Your task to perform on an android device: check the backup settings in the google photos Image 0: 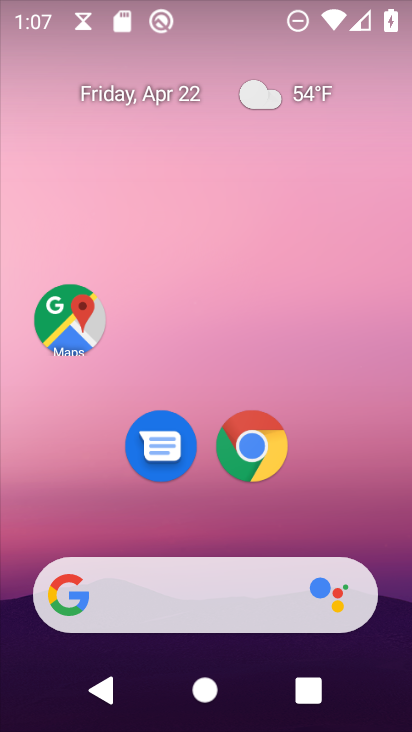
Step 0: drag from (398, 569) to (278, 72)
Your task to perform on an android device: check the backup settings in the google photos Image 1: 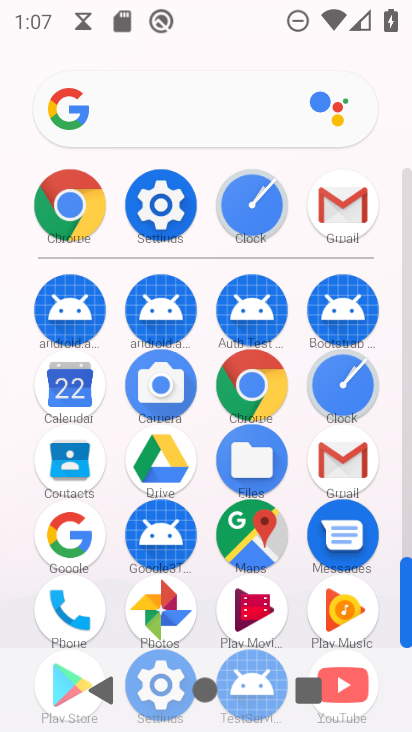
Step 1: click (182, 594)
Your task to perform on an android device: check the backup settings in the google photos Image 2: 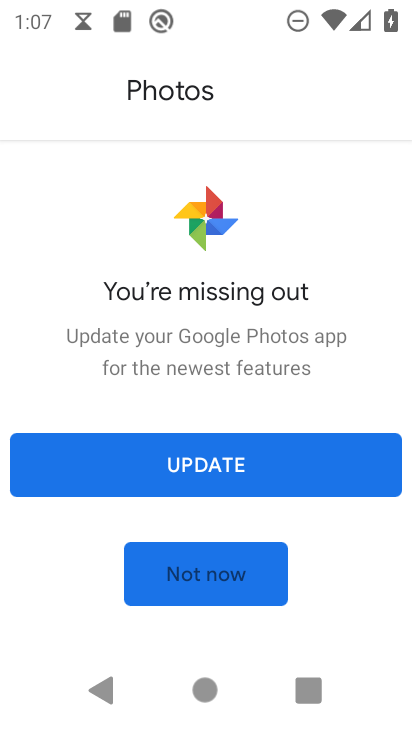
Step 2: click (231, 463)
Your task to perform on an android device: check the backup settings in the google photos Image 3: 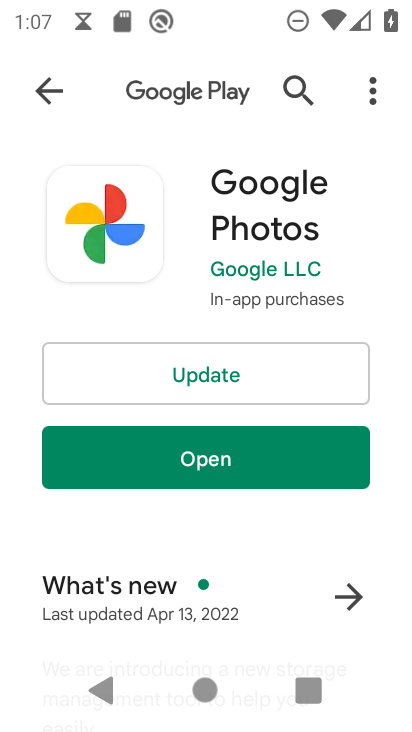
Step 3: click (227, 396)
Your task to perform on an android device: check the backup settings in the google photos Image 4: 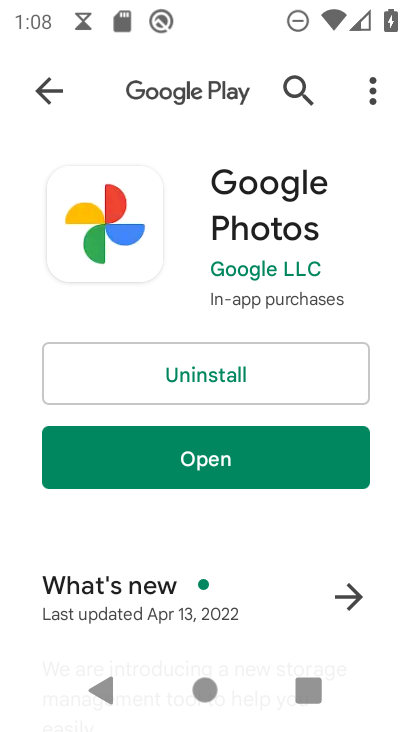
Step 4: click (300, 474)
Your task to perform on an android device: check the backup settings in the google photos Image 5: 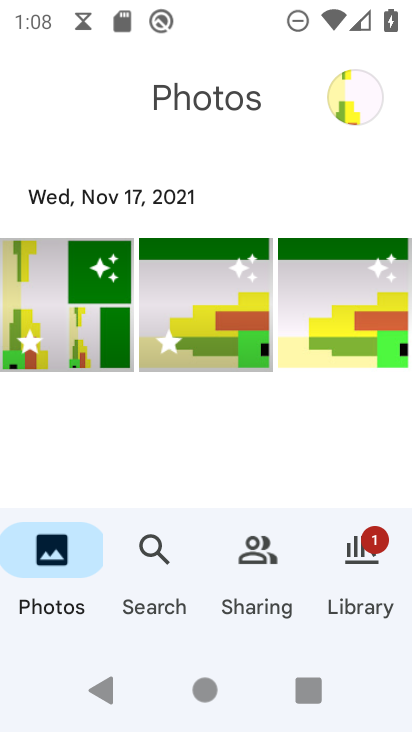
Step 5: click (350, 102)
Your task to perform on an android device: check the backup settings in the google photos Image 6: 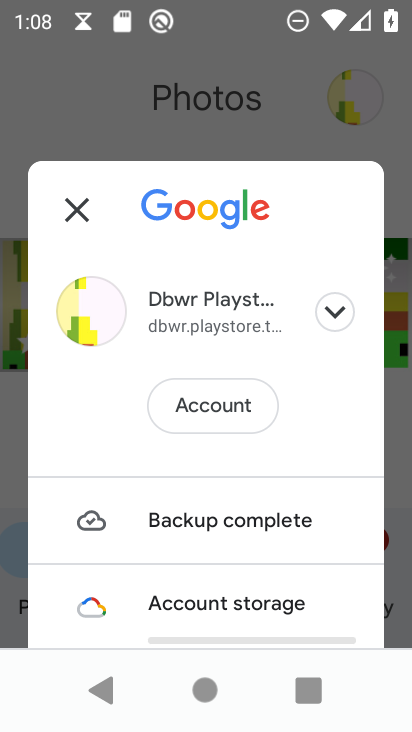
Step 6: drag from (255, 506) to (262, 195)
Your task to perform on an android device: check the backup settings in the google photos Image 7: 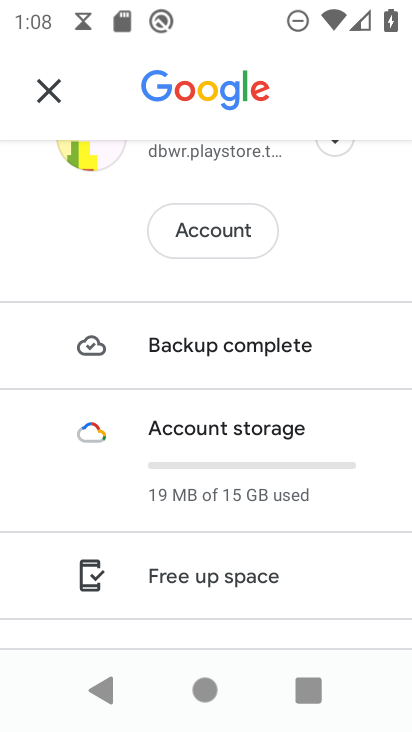
Step 7: drag from (283, 538) to (266, 206)
Your task to perform on an android device: check the backup settings in the google photos Image 8: 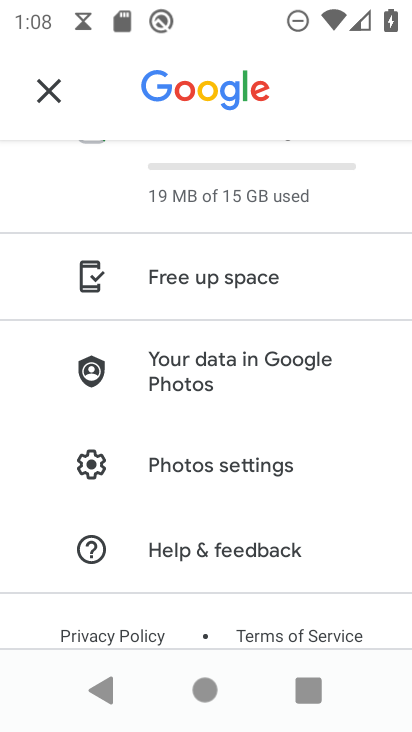
Step 8: click (290, 468)
Your task to perform on an android device: check the backup settings in the google photos Image 9: 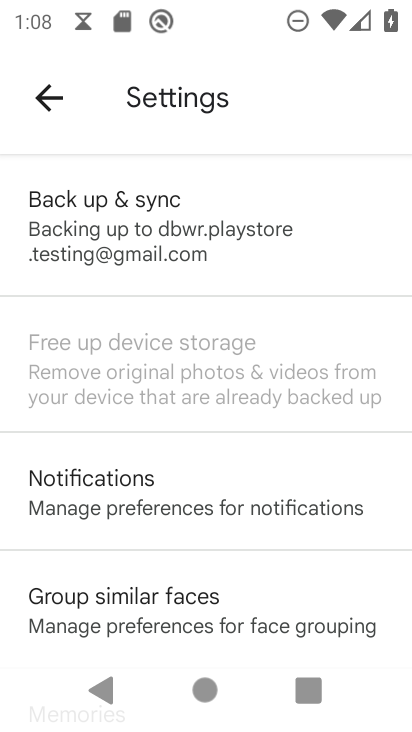
Step 9: click (259, 245)
Your task to perform on an android device: check the backup settings in the google photos Image 10: 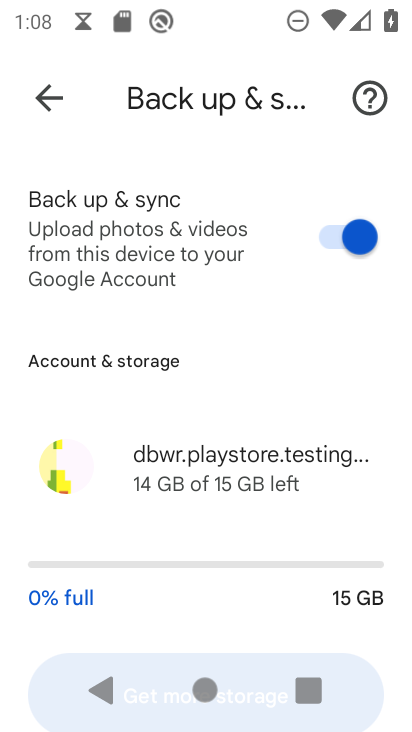
Step 10: task complete